Your task to perform on an android device: Show me recent news Image 0: 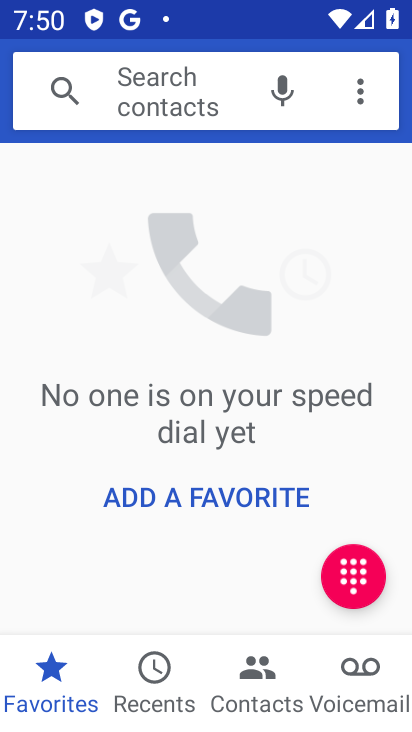
Step 0: press home button
Your task to perform on an android device: Show me recent news Image 1: 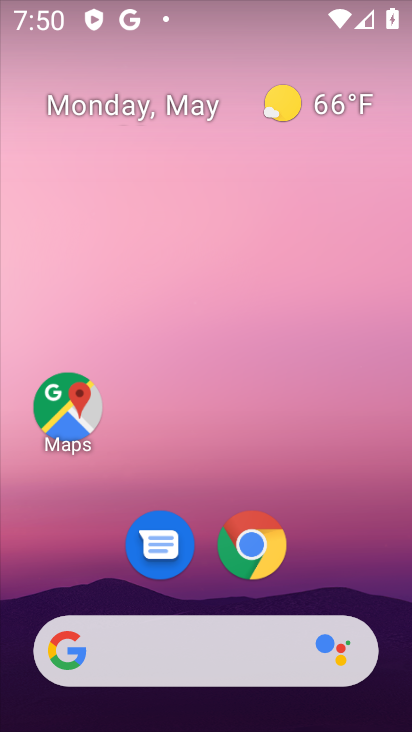
Step 1: task complete